Your task to perform on an android device: What's on my calendar tomorrow? Image 0: 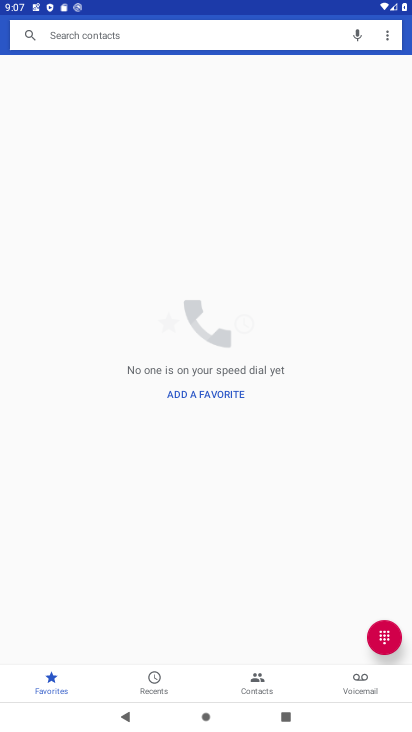
Step 0: press home button
Your task to perform on an android device: What's on my calendar tomorrow? Image 1: 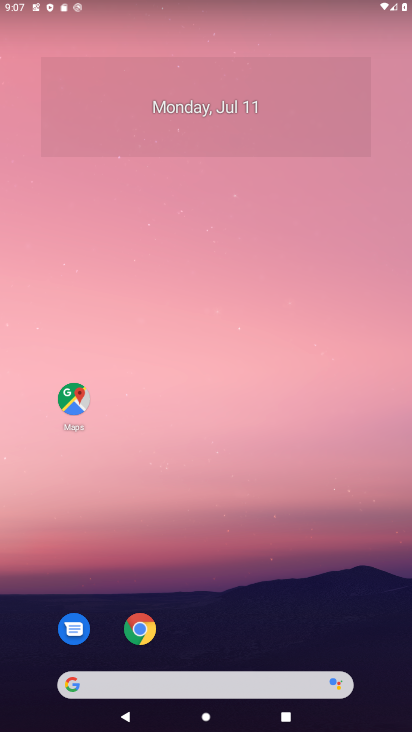
Step 1: drag from (31, 717) to (357, 35)
Your task to perform on an android device: What's on my calendar tomorrow? Image 2: 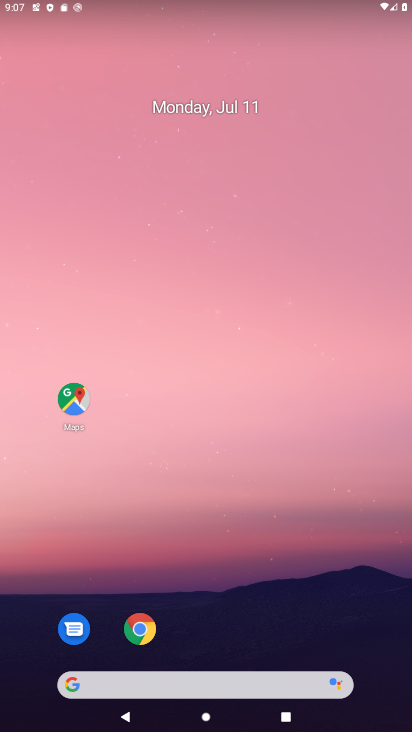
Step 2: drag from (190, 439) to (332, 66)
Your task to perform on an android device: What's on my calendar tomorrow? Image 3: 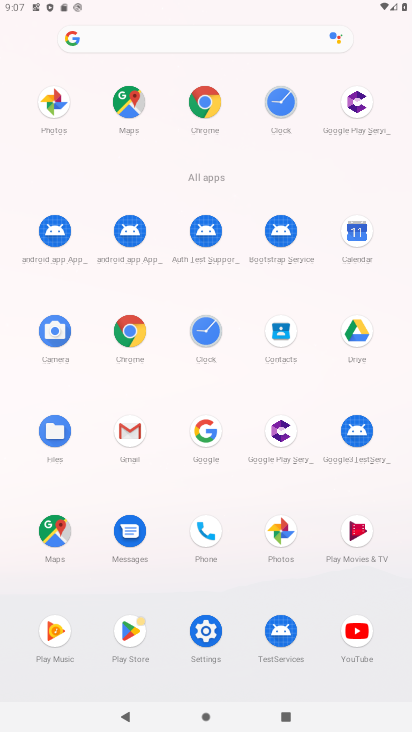
Step 3: click (366, 235)
Your task to perform on an android device: What's on my calendar tomorrow? Image 4: 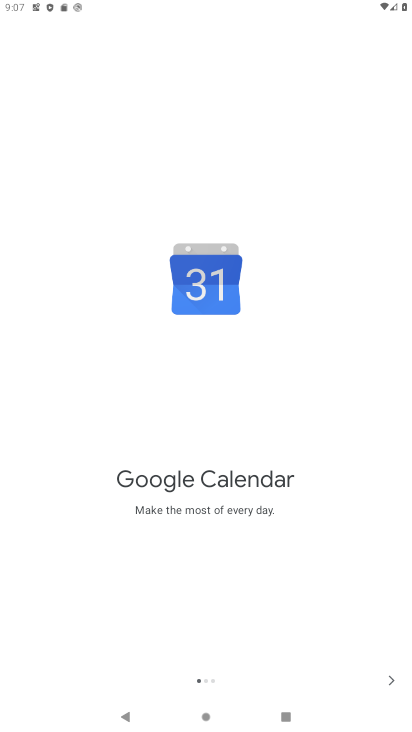
Step 4: click (391, 675)
Your task to perform on an android device: What's on my calendar tomorrow? Image 5: 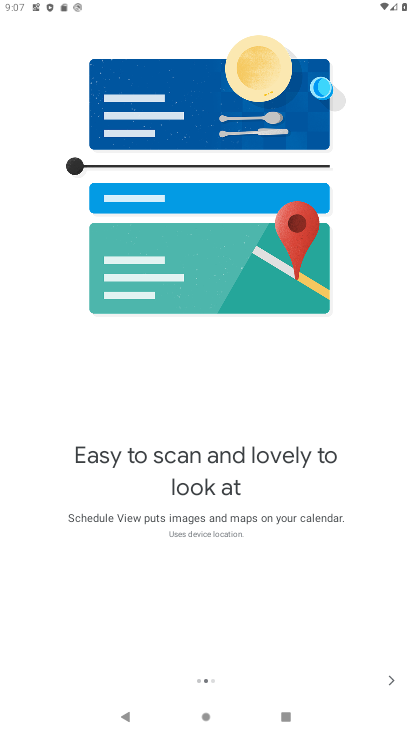
Step 5: click (396, 680)
Your task to perform on an android device: What's on my calendar tomorrow? Image 6: 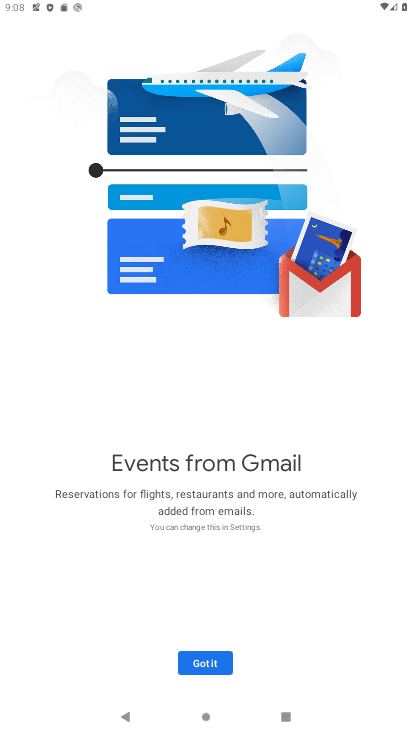
Step 6: click (394, 677)
Your task to perform on an android device: What's on my calendar tomorrow? Image 7: 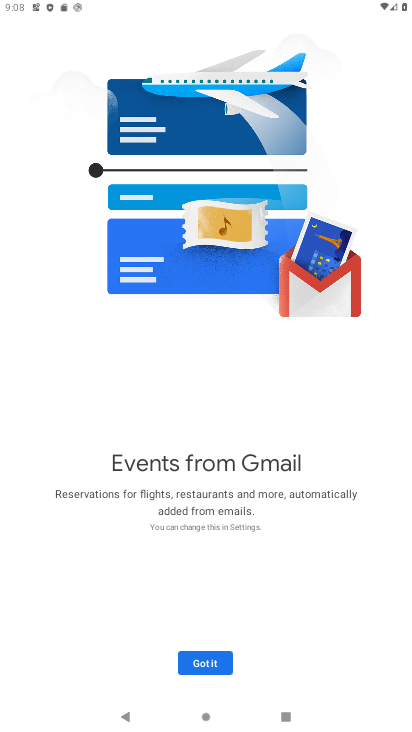
Step 7: click (204, 668)
Your task to perform on an android device: What's on my calendar tomorrow? Image 8: 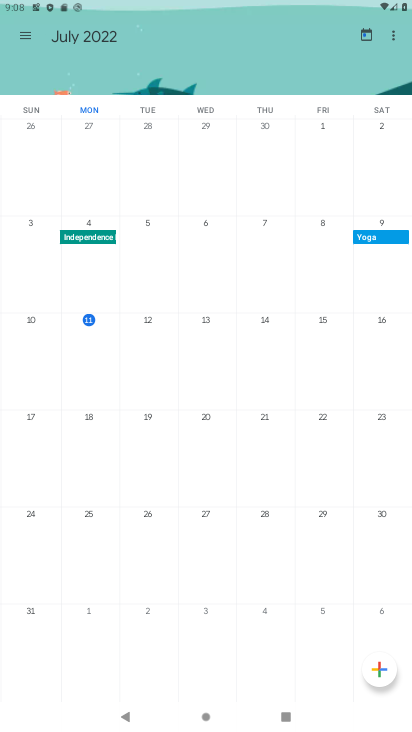
Step 8: task complete